Your task to perform on an android device: Go to CNN.com Image 0: 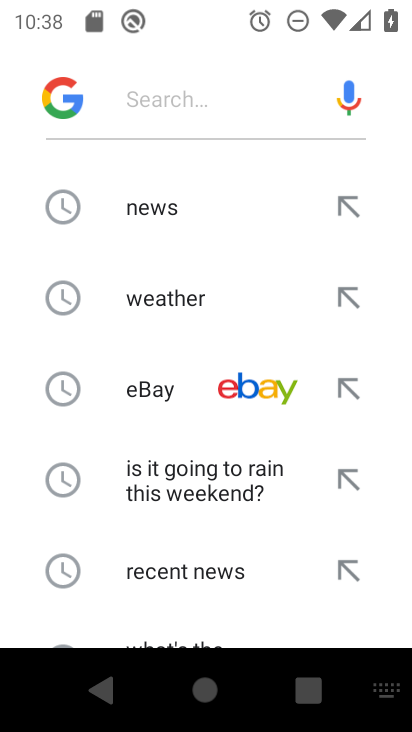
Step 0: type "cnn"
Your task to perform on an android device: Go to CNN.com Image 1: 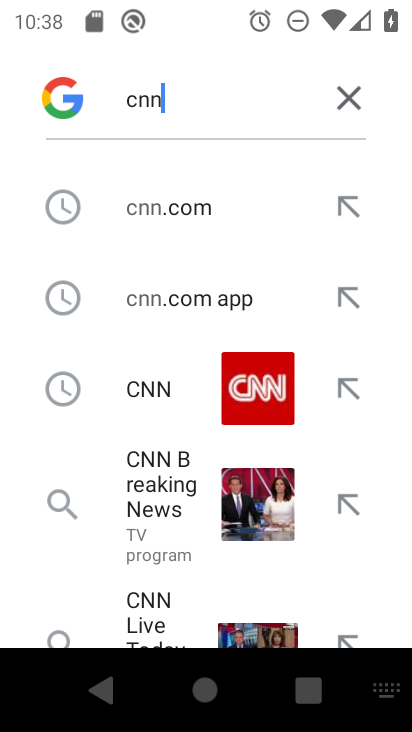
Step 1: click (236, 407)
Your task to perform on an android device: Go to CNN.com Image 2: 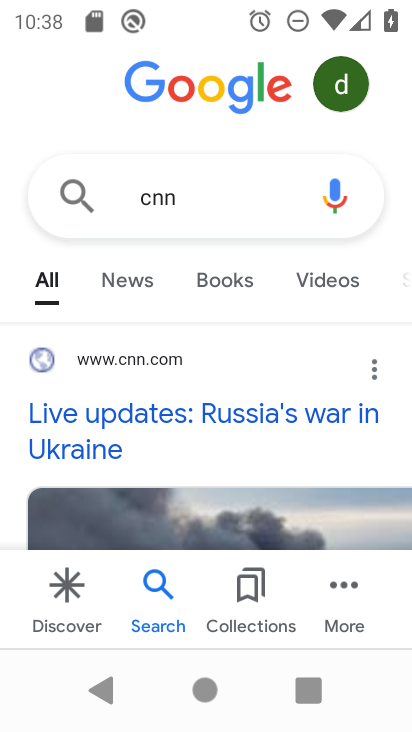
Step 2: click (177, 397)
Your task to perform on an android device: Go to CNN.com Image 3: 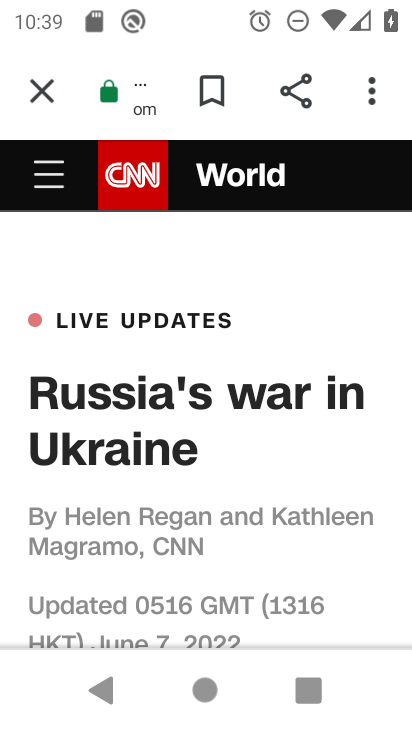
Step 3: click (281, 280)
Your task to perform on an android device: Go to CNN.com Image 4: 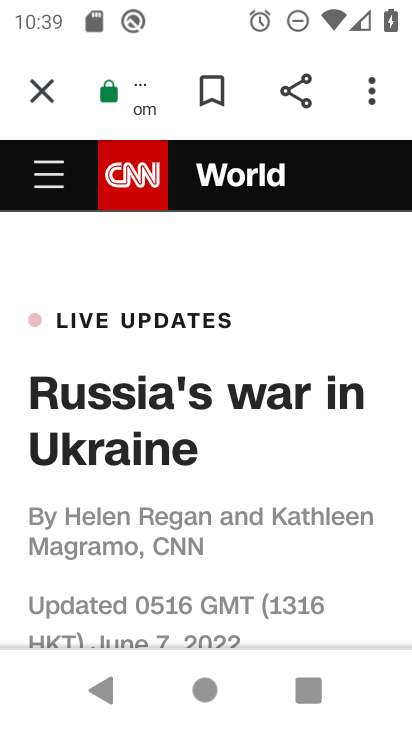
Step 4: click (281, 280)
Your task to perform on an android device: Go to CNN.com Image 5: 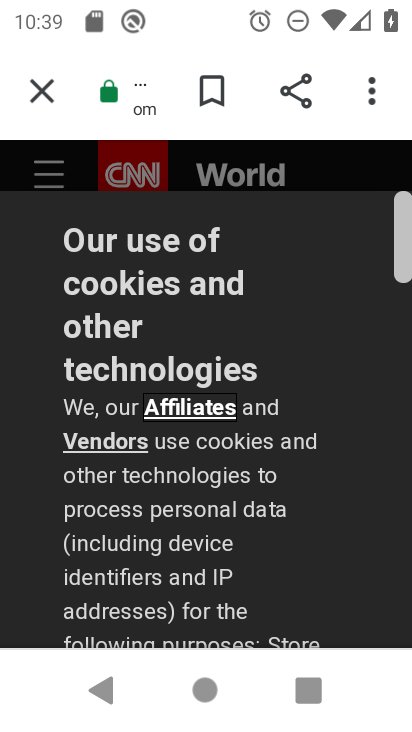
Step 5: task complete